Your task to perform on an android device: Open notification settings Image 0: 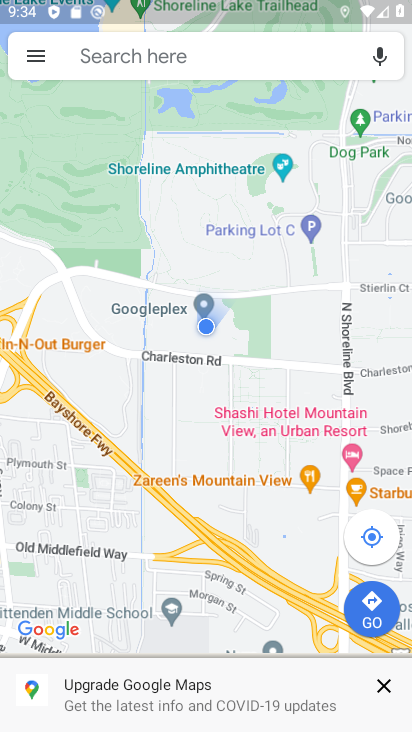
Step 0: press home button
Your task to perform on an android device: Open notification settings Image 1: 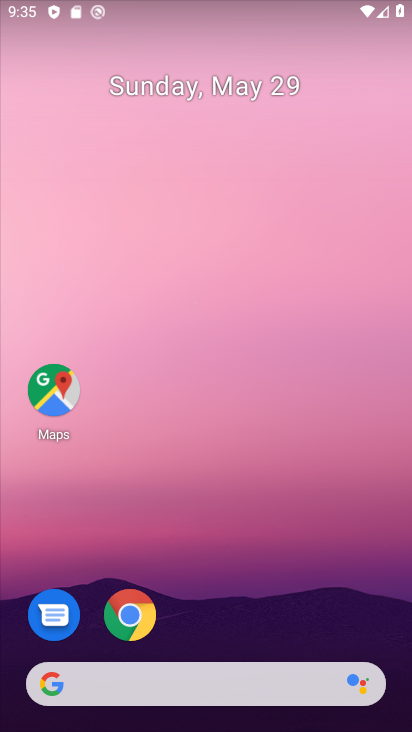
Step 1: drag from (215, 640) to (117, 21)
Your task to perform on an android device: Open notification settings Image 2: 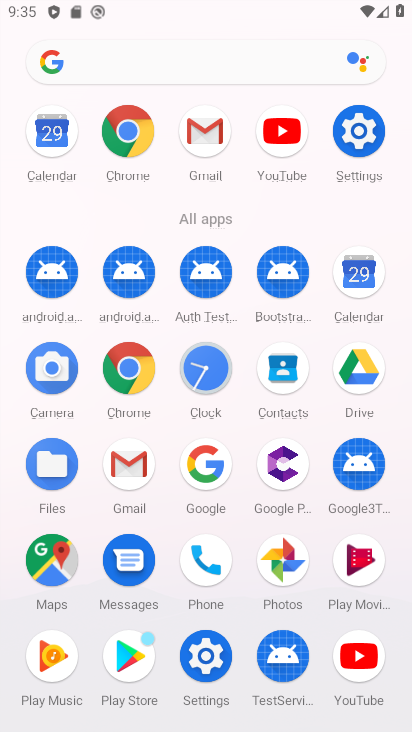
Step 2: click (194, 654)
Your task to perform on an android device: Open notification settings Image 3: 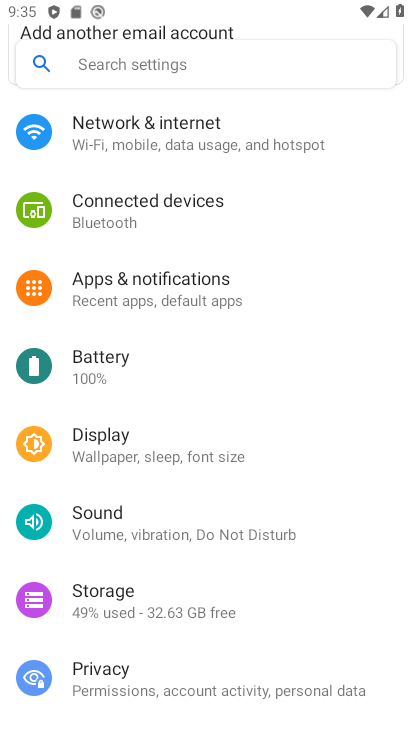
Step 3: click (205, 267)
Your task to perform on an android device: Open notification settings Image 4: 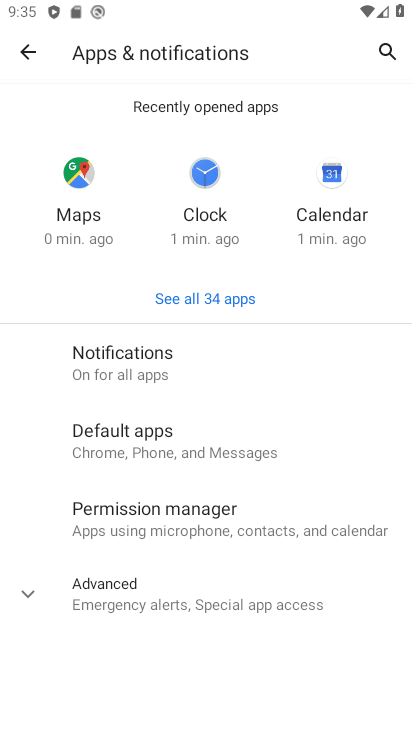
Step 4: click (168, 370)
Your task to perform on an android device: Open notification settings Image 5: 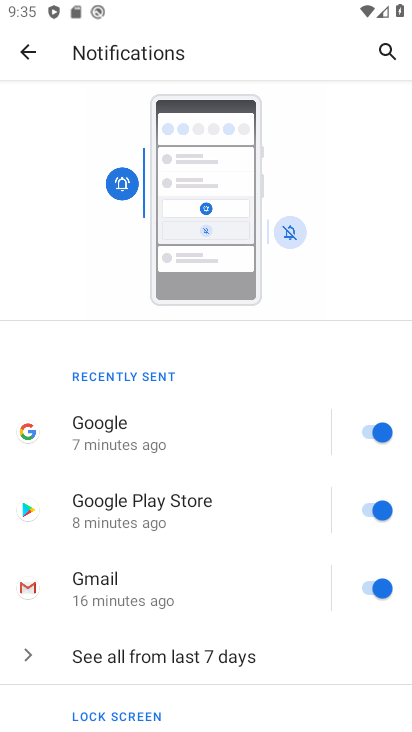
Step 5: task complete